Your task to perform on an android device: Go to network settings Image 0: 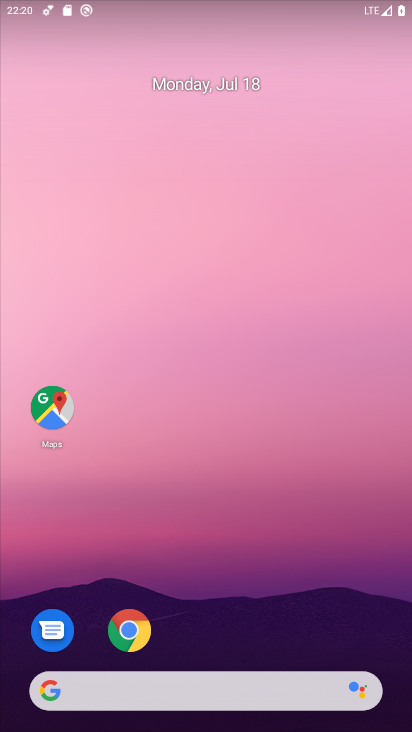
Step 0: drag from (284, 636) to (243, 100)
Your task to perform on an android device: Go to network settings Image 1: 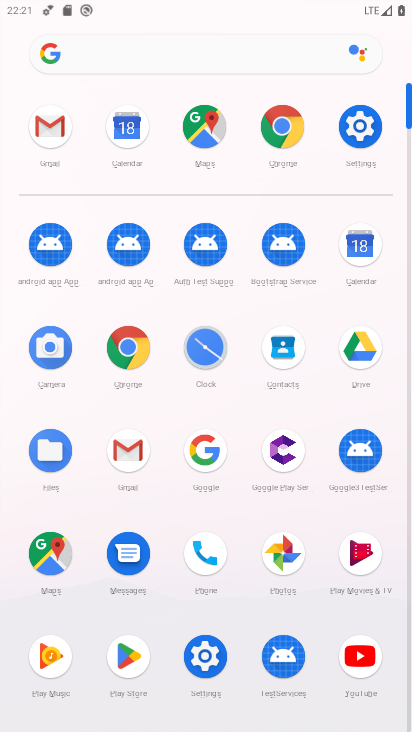
Step 1: click (358, 119)
Your task to perform on an android device: Go to network settings Image 2: 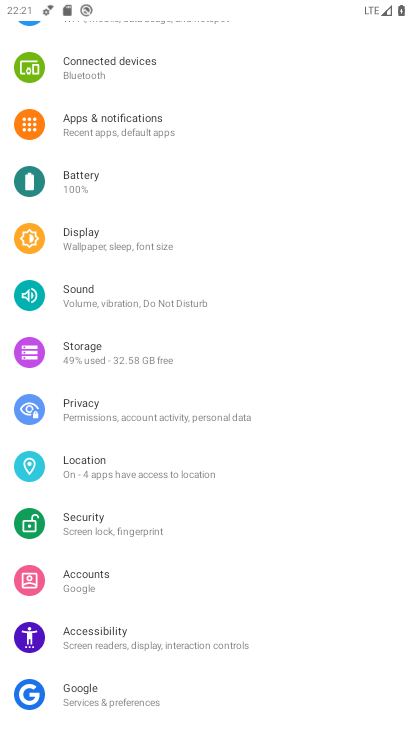
Step 2: drag from (134, 156) to (171, 652)
Your task to perform on an android device: Go to network settings Image 3: 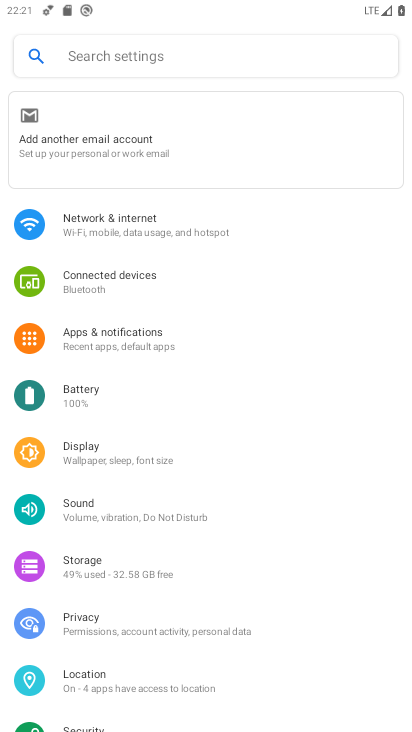
Step 3: click (154, 211)
Your task to perform on an android device: Go to network settings Image 4: 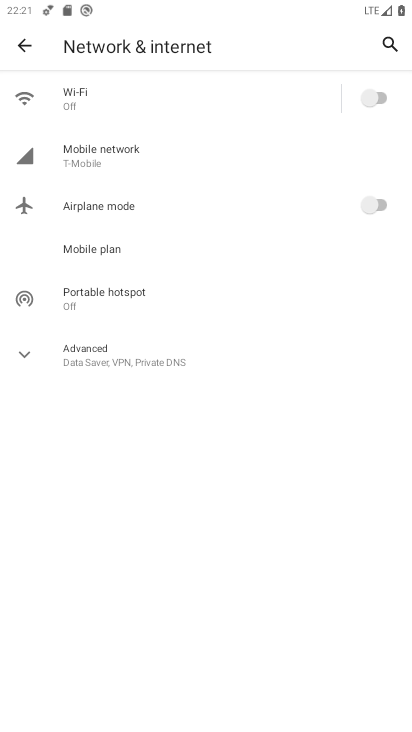
Step 4: task complete